Your task to perform on an android device: create a new album in the google photos Image 0: 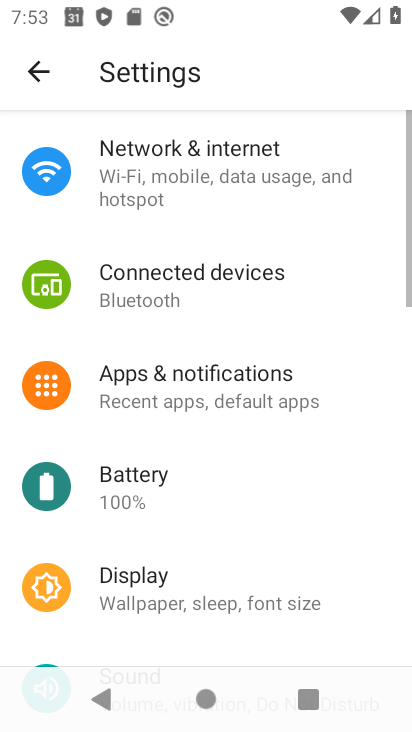
Step 0: press home button
Your task to perform on an android device: create a new album in the google photos Image 1: 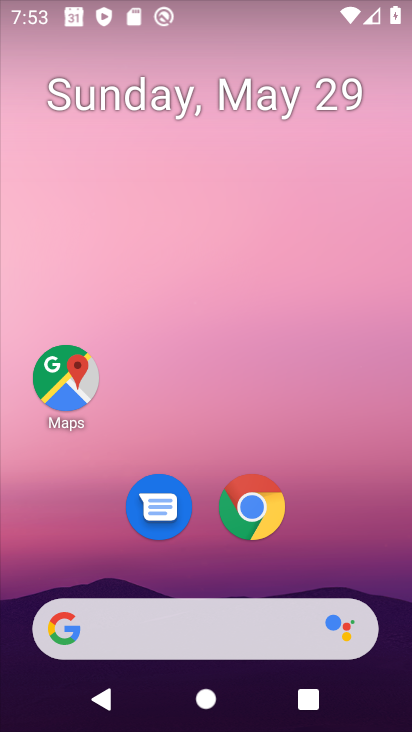
Step 1: drag from (303, 434) to (298, 79)
Your task to perform on an android device: create a new album in the google photos Image 2: 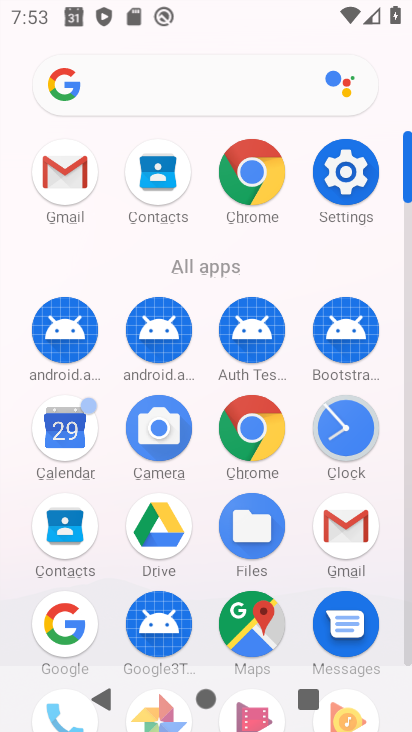
Step 2: drag from (218, 553) to (273, 148)
Your task to perform on an android device: create a new album in the google photos Image 3: 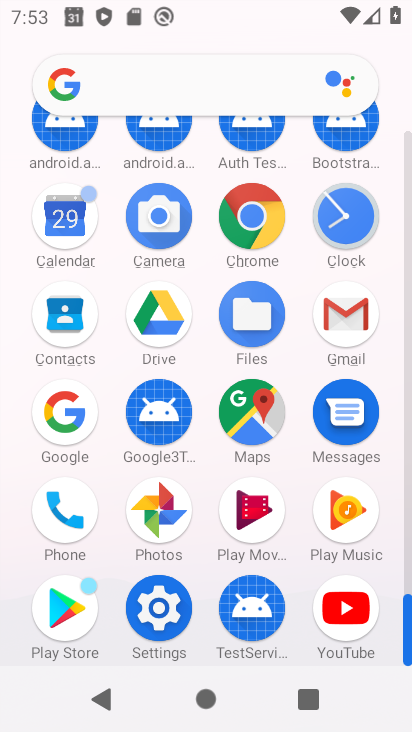
Step 3: click (161, 499)
Your task to perform on an android device: create a new album in the google photos Image 4: 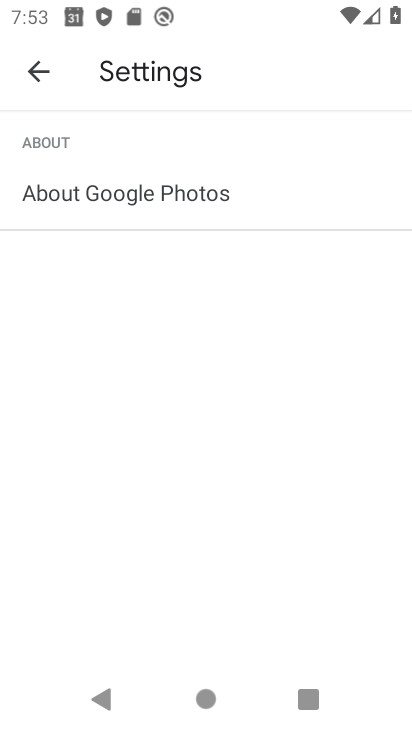
Step 4: click (41, 69)
Your task to perform on an android device: create a new album in the google photos Image 5: 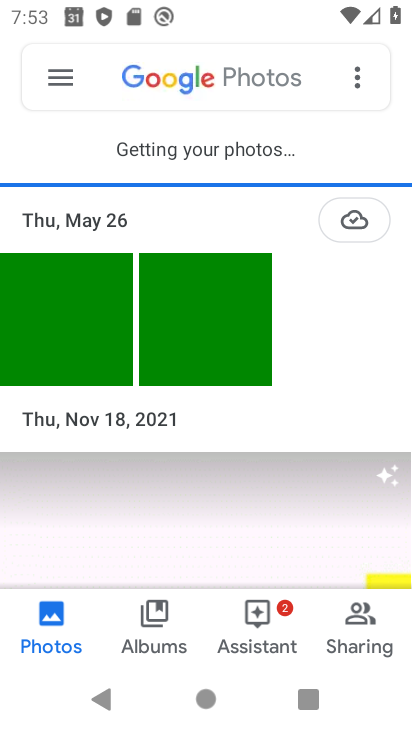
Step 5: click (41, 69)
Your task to perform on an android device: create a new album in the google photos Image 6: 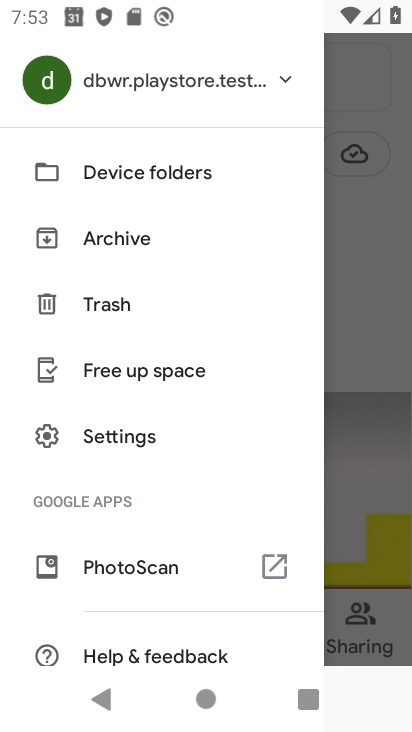
Step 6: click (391, 268)
Your task to perform on an android device: create a new album in the google photos Image 7: 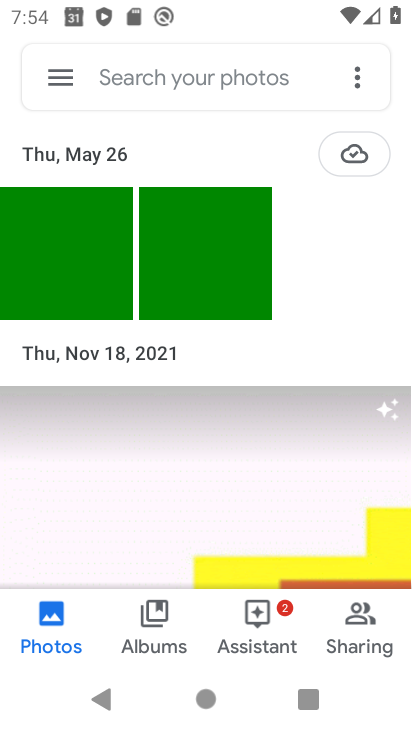
Step 7: click (181, 613)
Your task to perform on an android device: create a new album in the google photos Image 8: 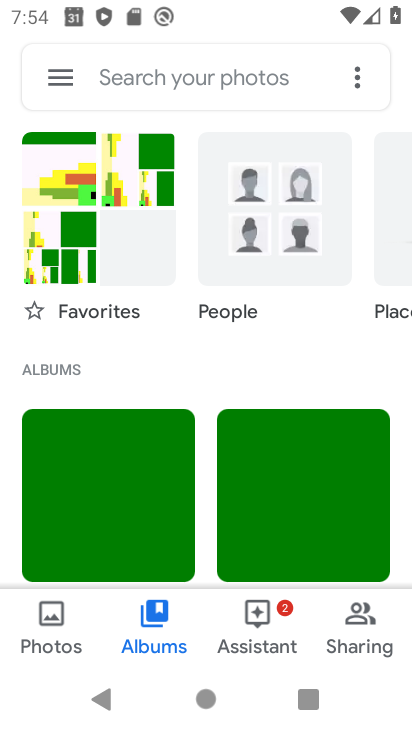
Step 8: click (361, 70)
Your task to perform on an android device: create a new album in the google photos Image 9: 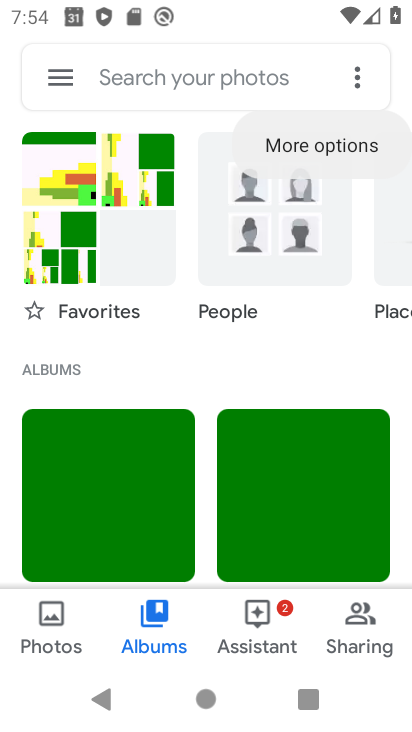
Step 9: click (352, 72)
Your task to perform on an android device: create a new album in the google photos Image 10: 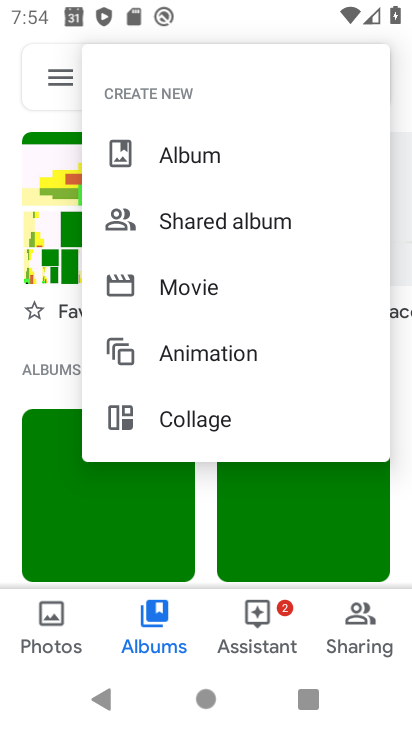
Step 10: click (147, 167)
Your task to perform on an android device: create a new album in the google photos Image 11: 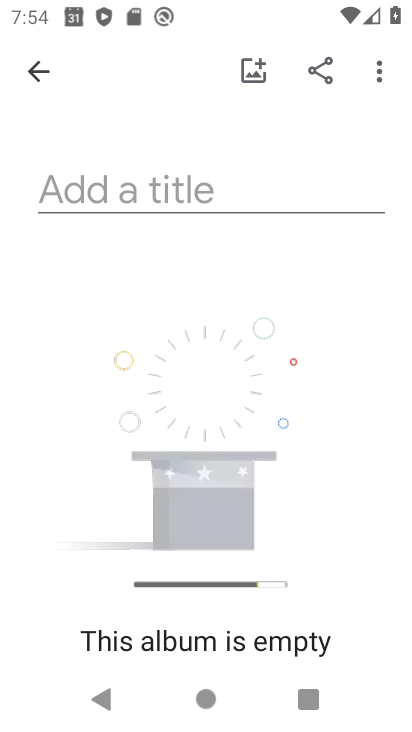
Step 11: click (155, 172)
Your task to perform on an android device: create a new album in the google photos Image 12: 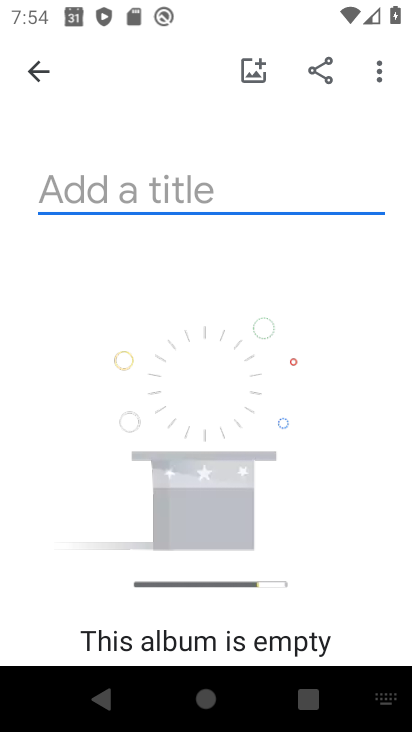
Step 12: type "sidhu musewala"
Your task to perform on an android device: create a new album in the google photos Image 13: 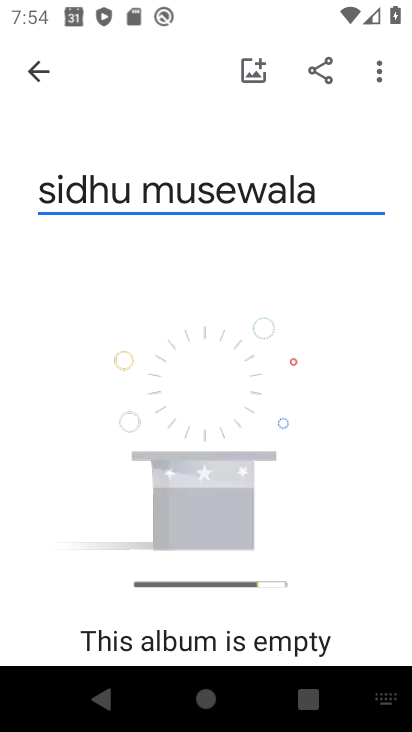
Step 13: drag from (280, 526) to (278, 173)
Your task to perform on an android device: create a new album in the google photos Image 14: 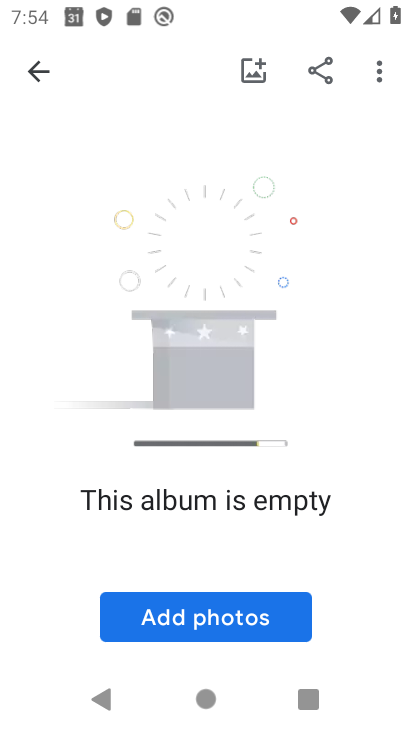
Step 14: click (189, 583)
Your task to perform on an android device: create a new album in the google photos Image 15: 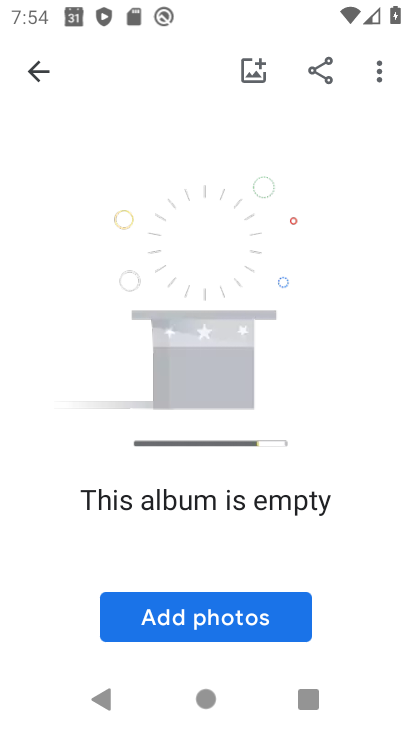
Step 15: click (189, 614)
Your task to perform on an android device: create a new album in the google photos Image 16: 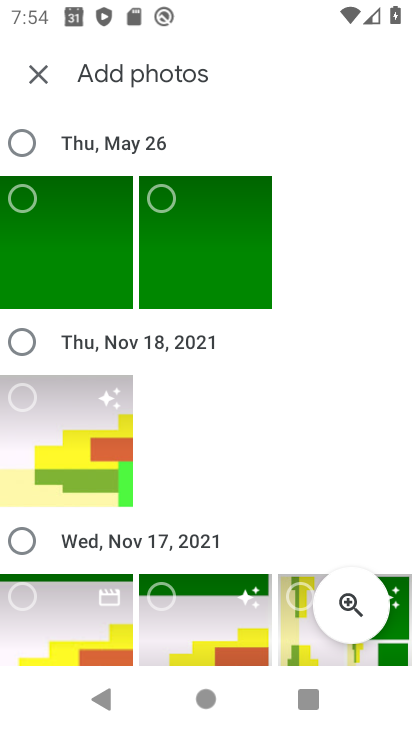
Step 16: click (96, 222)
Your task to perform on an android device: create a new album in the google photos Image 17: 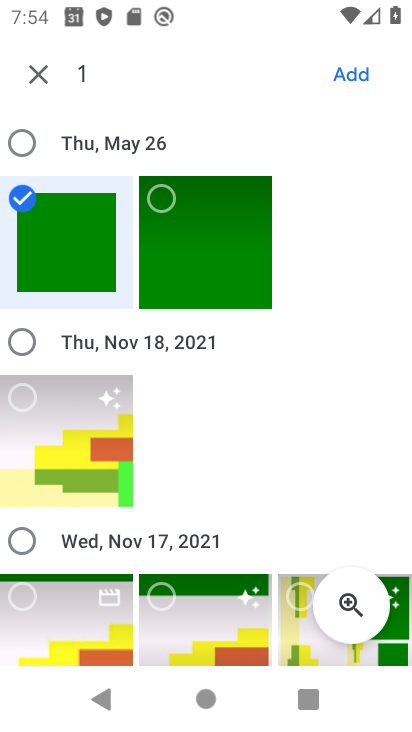
Step 17: click (356, 84)
Your task to perform on an android device: create a new album in the google photos Image 18: 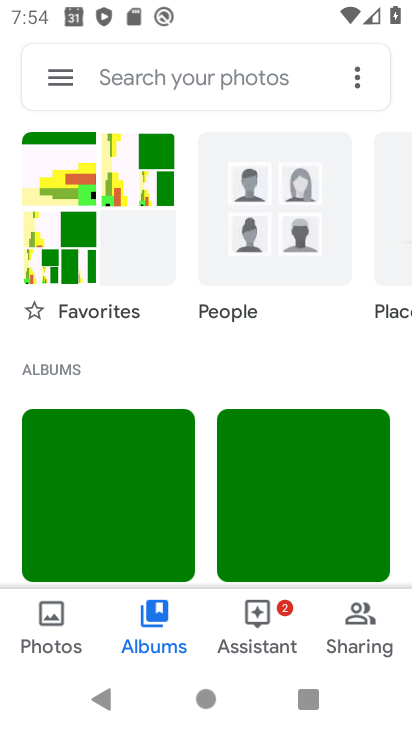
Step 18: task complete